Your task to perform on an android device: open app "McDonald's" (install if not already installed), go to login, and select forgot password Image 0: 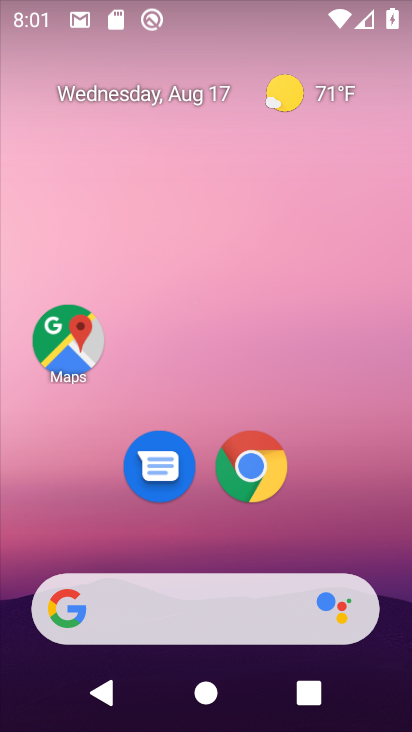
Step 0: drag from (201, 424) to (228, 5)
Your task to perform on an android device: open app "McDonald's" (install if not already installed), go to login, and select forgot password Image 1: 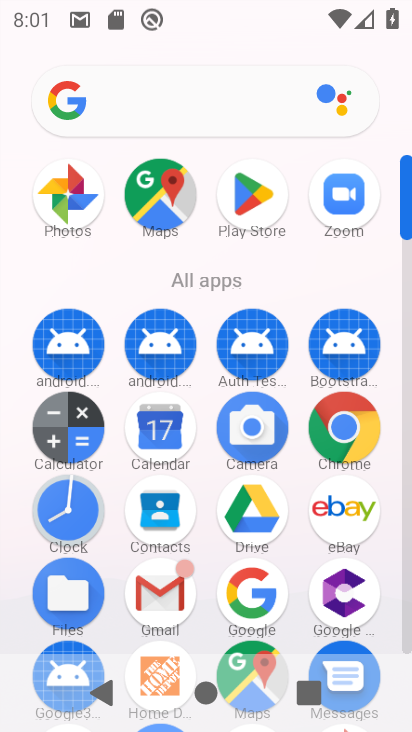
Step 1: click (238, 183)
Your task to perform on an android device: open app "McDonald's" (install if not already installed), go to login, and select forgot password Image 2: 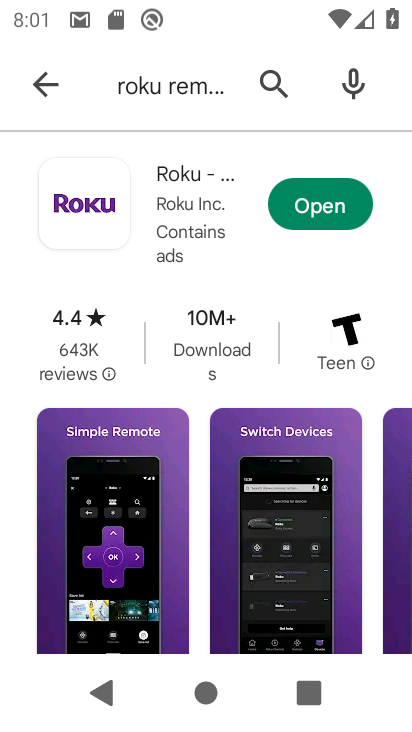
Step 2: click (170, 82)
Your task to perform on an android device: open app "McDonald's" (install if not already installed), go to login, and select forgot password Image 3: 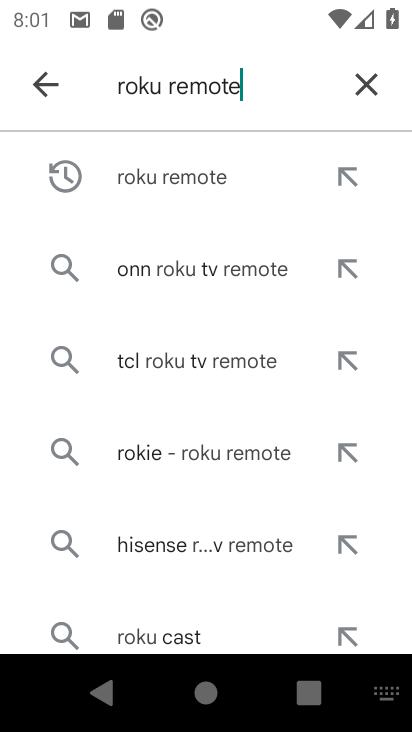
Step 3: click (354, 78)
Your task to perform on an android device: open app "McDonald's" (install if not already installed), go to login, and select forgot password Image 4: 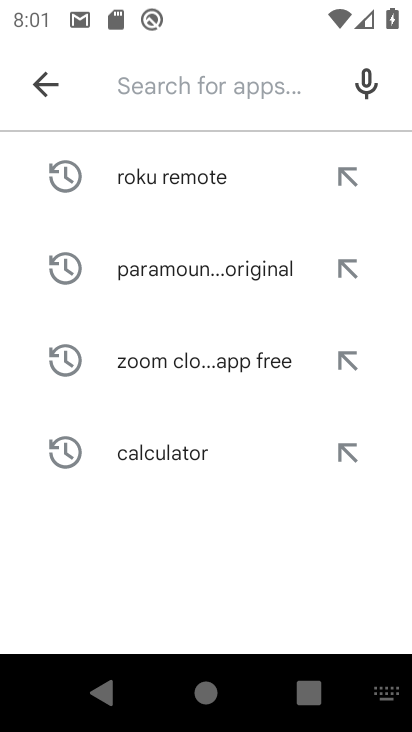
Step 4: type "McDonalds"
Your task to perform on an android device: open app "McDonald's" (install if not already installed), go to login, and select forgot password Image 5: 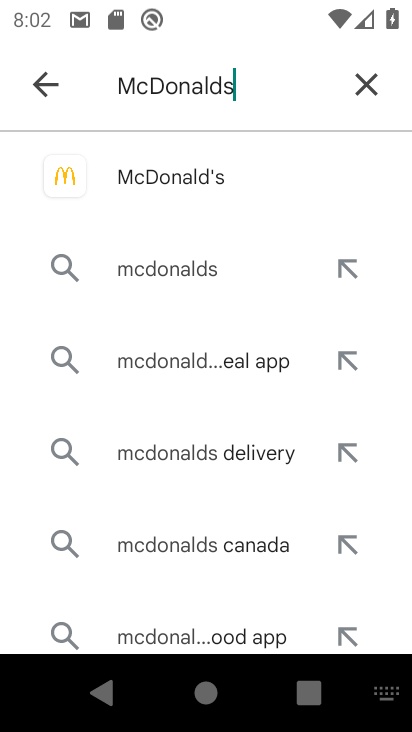
Step 5: click (175, 193)
Your task to perform on an android device: open app "McDonald's" (install if not already installed), go to login, and select forgot password Image 6: 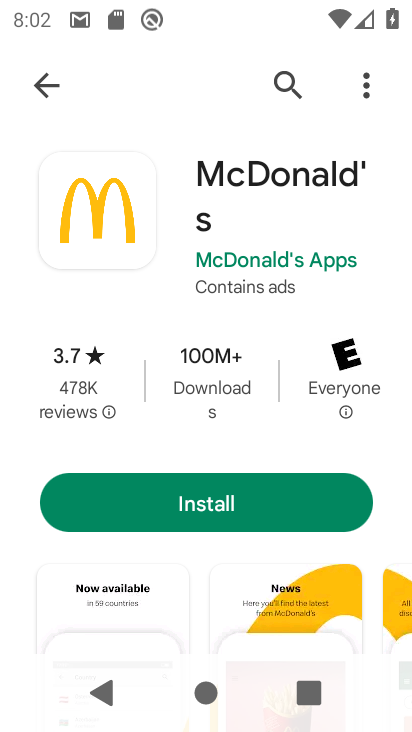
Step 6: click (211, 509)
Your task to perform on an android device: open app "McDonald's" (install if not already installed), go to login, and select forgot password Image 7: 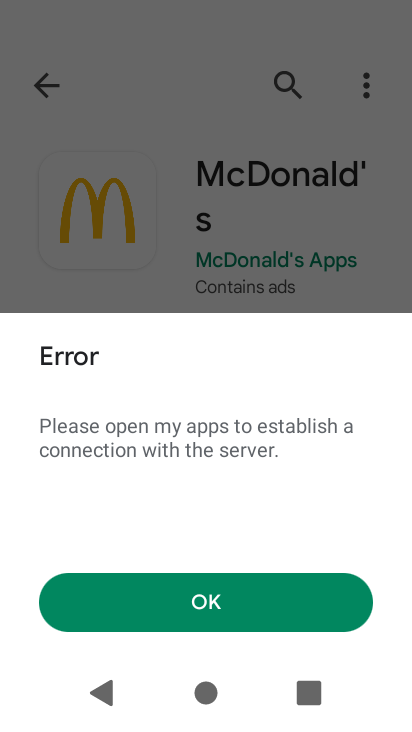
Step 7: click (227, 603)
Your task to perform on an android device: open app "McDonald's" (install if not already installed), go to login, and select forgot password Image 8: 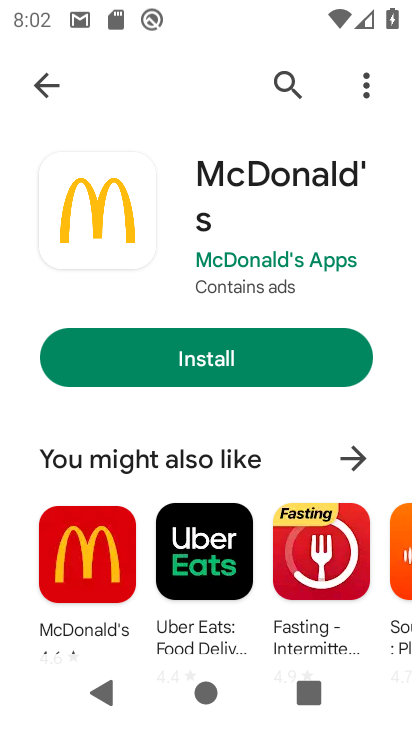
Step 8: click (112, 356)
Your task to perform on an android device: open app "McDonald's" (install if not already installed), go to login, and select forgot password Image 9: 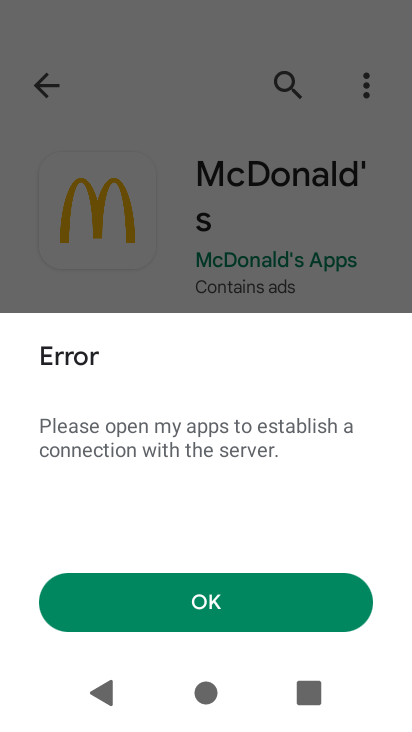
Step 9: click (200, 608)
Your task to perform on an android device: open app "McDonald's" (install if not already installed), go to login, and select forgot password Image 10: 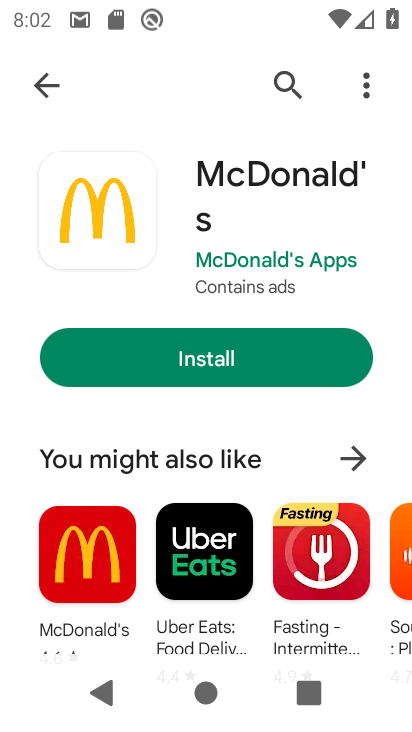
Step 10: click (185, 375)
Your task to perform on an android device: open app "McDonald's" (install if not already installed), go to login, and select forgot password Image 11: 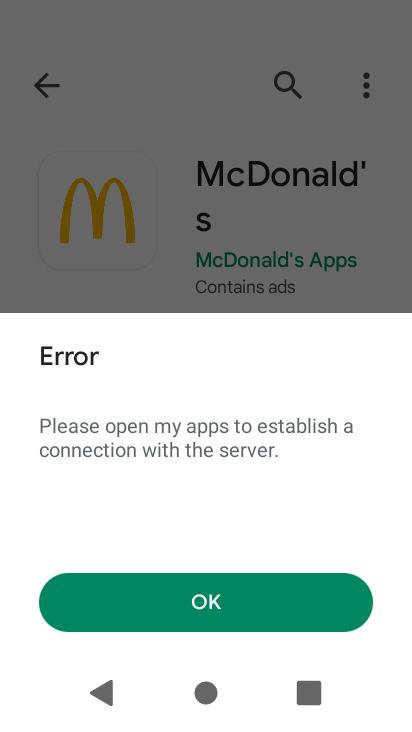
Step 11: click (208, 555)
Your task to perform on an android device: open app "McDonald's" (install if not already installed), go to login, and select forgot password Image 12: 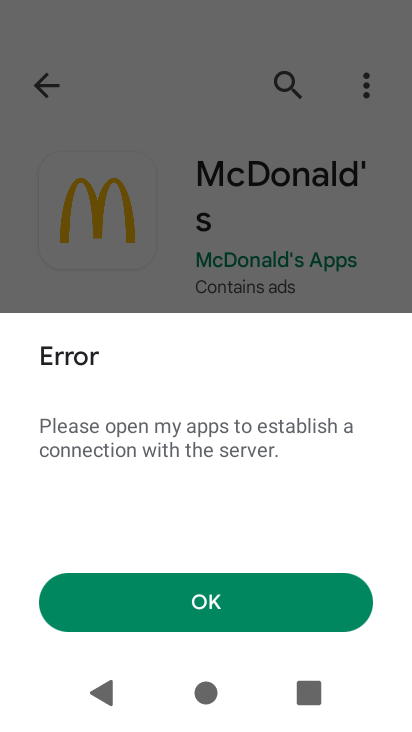
Step 12: click (177, 606)
Your task to perform on an android device: open app "McDonald's" (install if not already installed), go to login, and select forgot password Image 13: 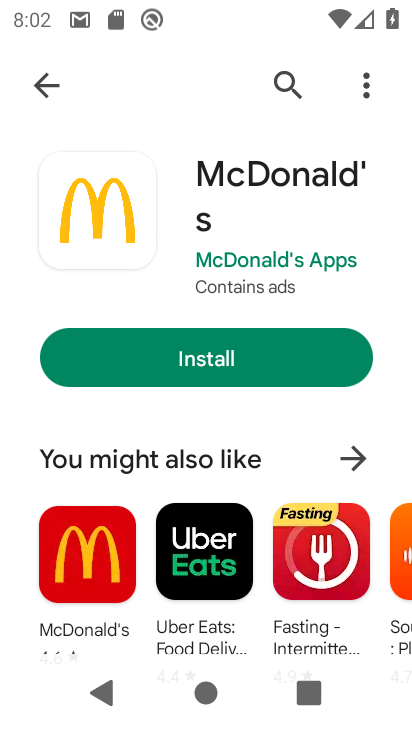
Step 13: drag from (175, 466) to (187, 291)
Your task to perform on an android device: open app "McDonald's" (install if not already installed), go to login, and select forgot password Image 14: 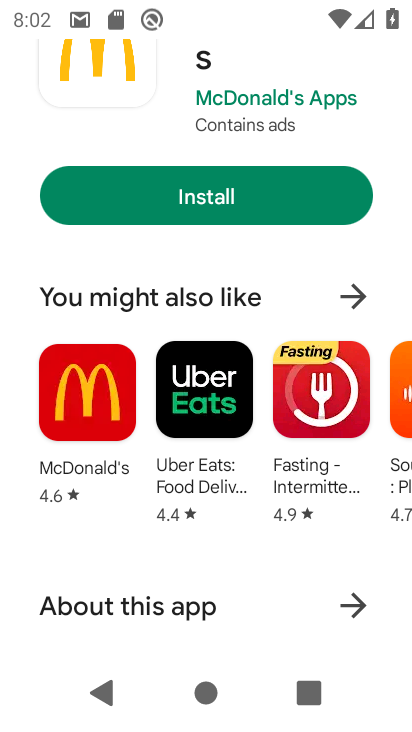
Step 14: click (68, 405)
Your task to perform on an android device: open app "McDonald's" (install if not already installed), go to login, and select forgot password Image 15: 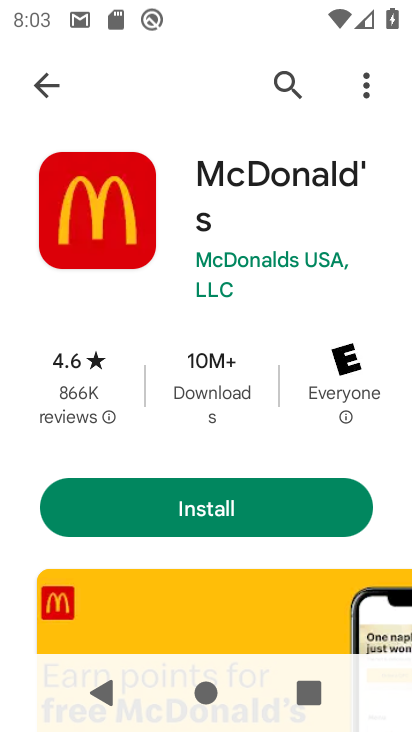
Step 15: click (258, 518)
Your task to perform on an android device: open app "McDonald's" (install if not already installed), go to login, and select forgot password Image 16: 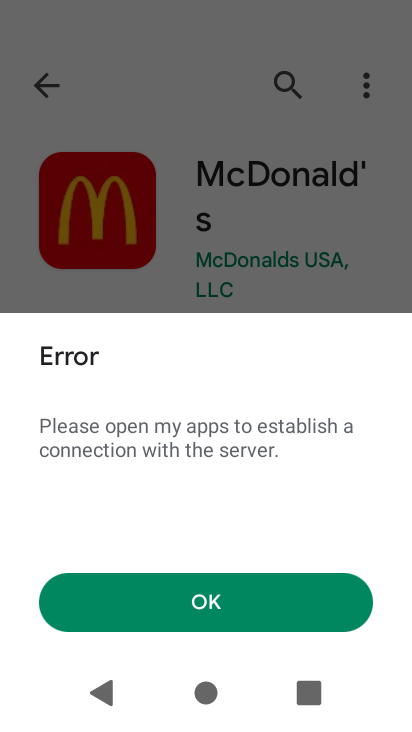
Step 16: click (230, 602)
Your task to perform on an android device: open app "McDonald's" (install if not already installed), go to login, and select forgot password Image 17: 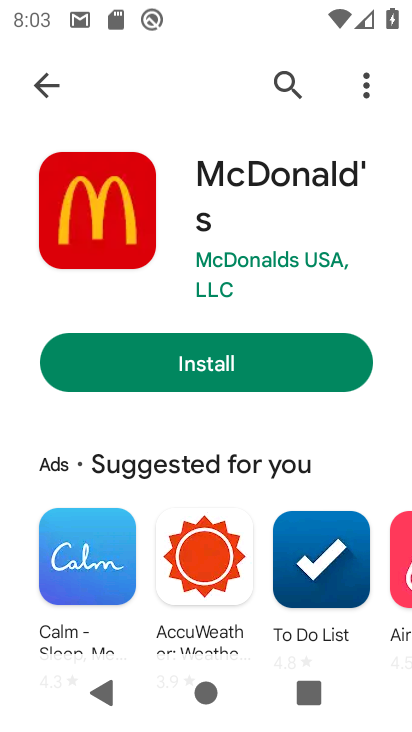
Step 17: task complete